Your task to perform on an android device: open app "WhatsApp Messenger" Image 0: 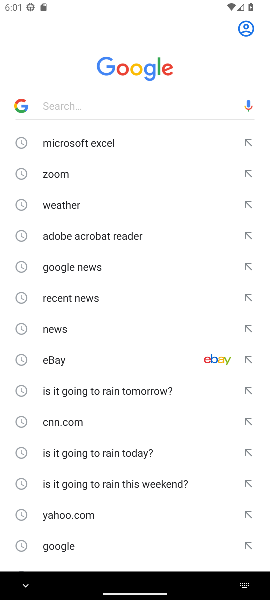
Step 0: press back button
Your task to perform on an android device: open app "WhatsApp Messenger" Image 1: 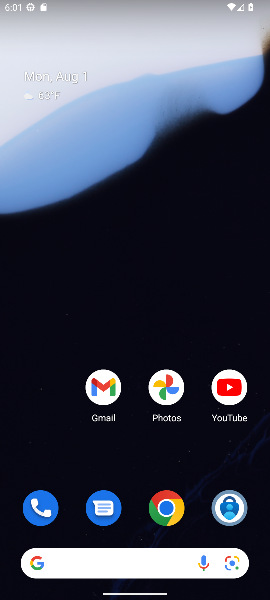
Step 1: press home button
Your task to perform on an android device: open app "WhatsApp Messenger" Image 2: 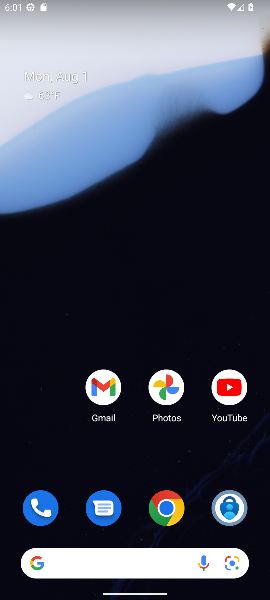
Step 2: drag from (131, 537) to (116, 114)
Your task to perform on an android device: open app "WhatsApp Messenger" Image 3: 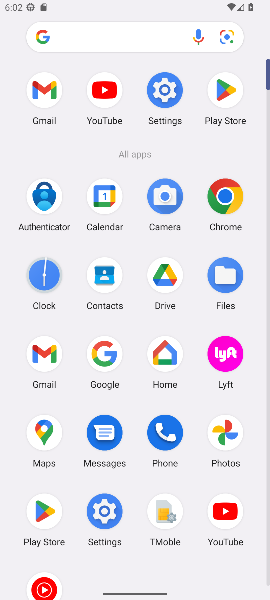
Step 3: click (50, 511)
Your task to perform on an android device: open app "WhatsApp Messenger" Image 4: 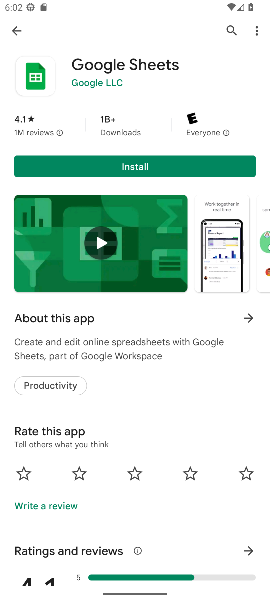
Step 4: click (14, 45)
Your task to perform on an android device: open app "WhatsApp Messenger" Image 5: 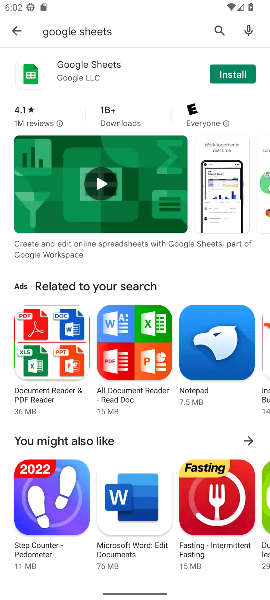
Step 5: click (19, 32)
Your task to perform on an android device: open app "WhatsApp Messenger" Image 6: 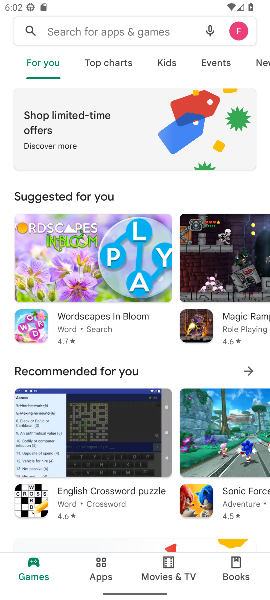
Step 6: click (89, 21)
Your task to perform on an android device: open app "WhatsApp Messenger" Image 7: 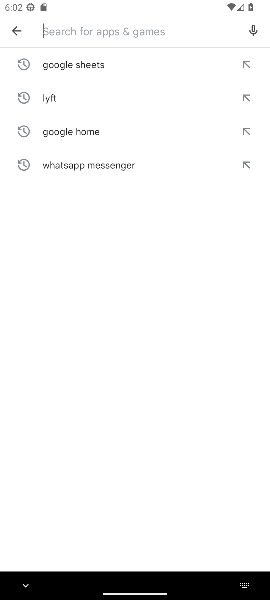
Step 7: click (153, 166)
Your task to perform on an android device: open app "WhatsApp Messenger" Image 8: 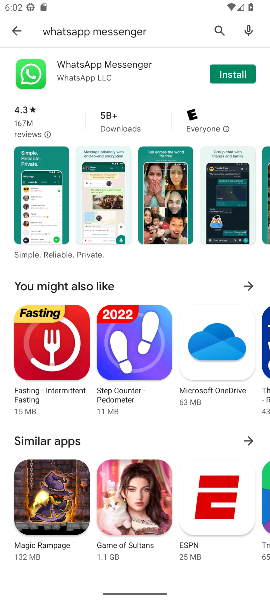
Step 8: click (167, 79)
Your task to perform on an android device: open app "WhatsApp Messenger" Image 9: 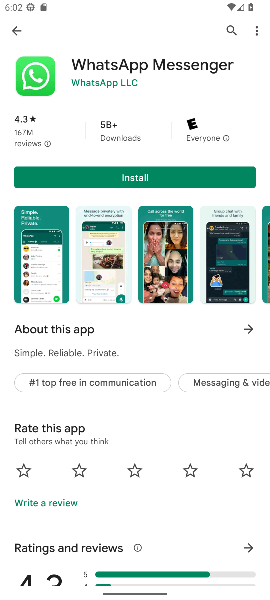
Step 9: task complete